Your task to perform on an android device: Open maps Image 0: 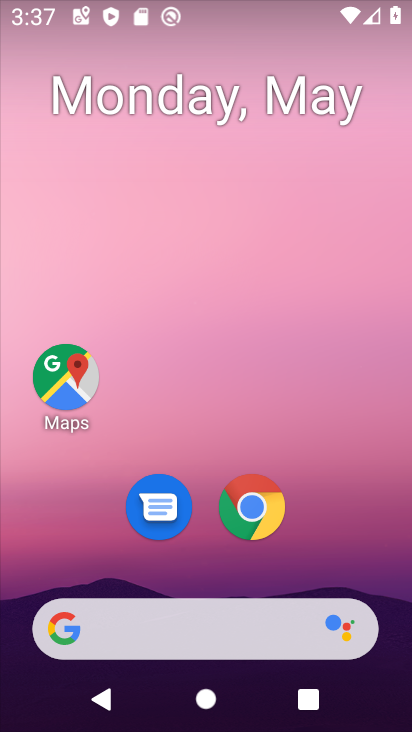
Step 0: click (63, 373)
Your task to perform on an android device: Open maps Image 1: 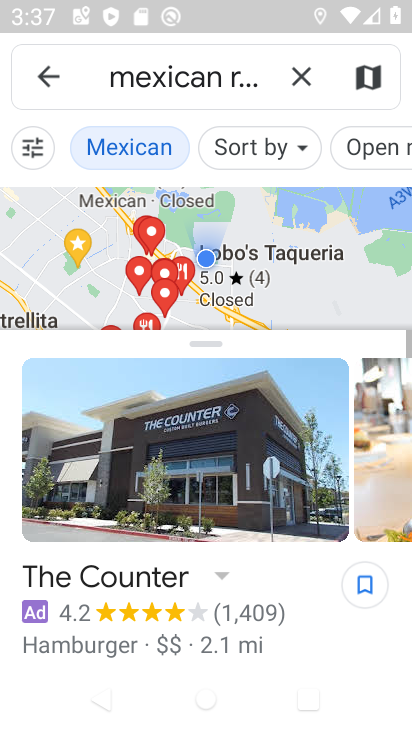
Step 1: task complete